Your task to perform on an android device: What's on my calendar today? Image 0: 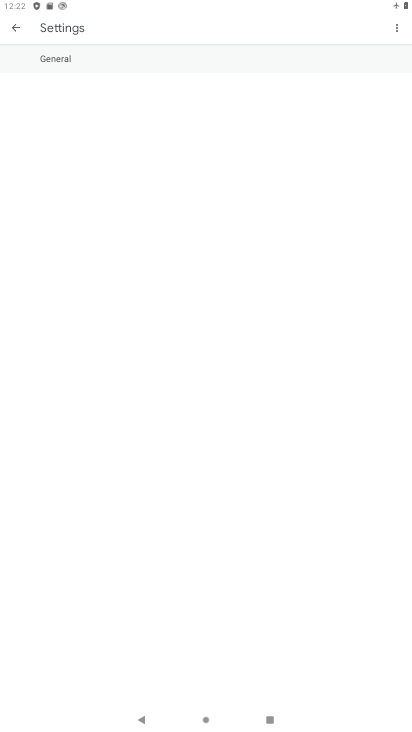
Step 0: press home button
Your task to perform on an android device: What's on my calendar today? Image 1: 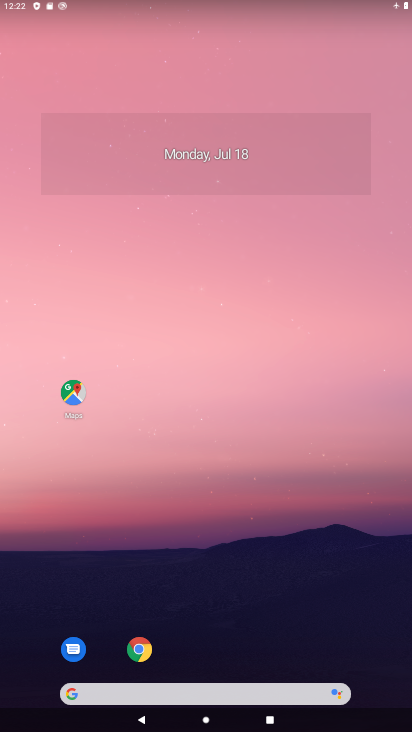
Step 1: drag from (74, 579) to (227, 45)
Your task to perform on an android device: What's on my calendar today? Image 2: 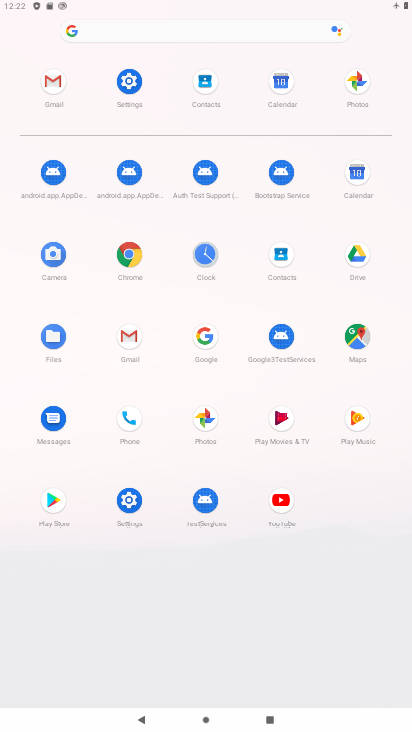
Step 2: click (344, 183)
Your task to perform on an android device: What's on my calendar today? Image 3: 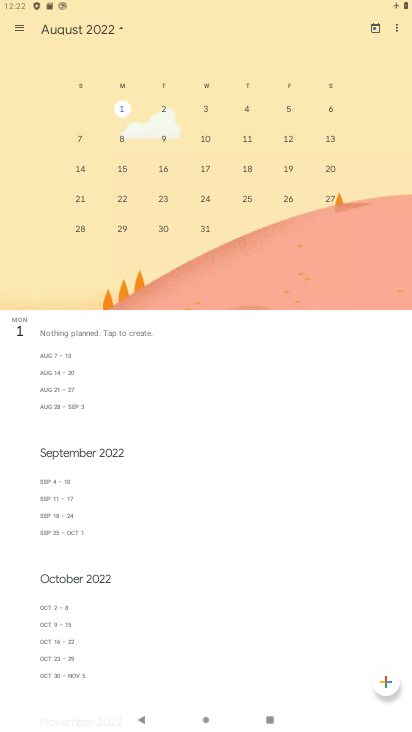
Step 3: task complete